Your task to perform on an android device: see tabs open on other devices in the chrome app Image 0: 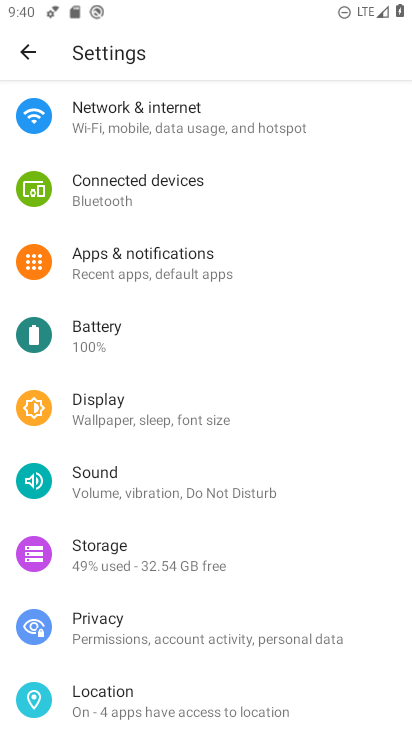
Step 0: press home button
Your task to perform on an android device: see tabs open on other devices in the chrome app Image 1: 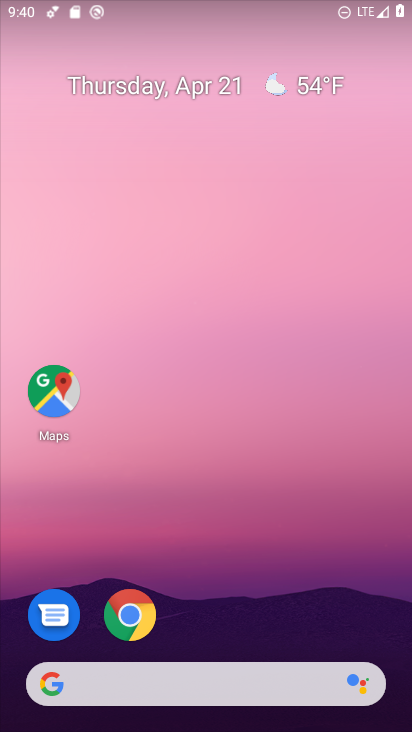
Step 1: click (142, 611)
Your task to perform on an android device: see tabs open on other devices in the chrome app Image 2: 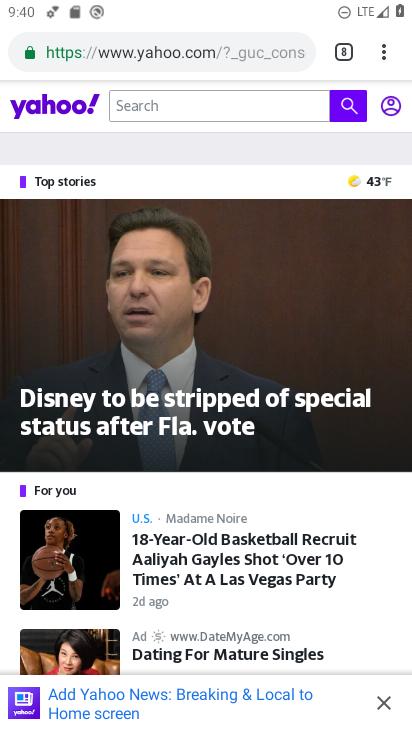
Step 2: task complete